Your task to perform on an android device: Turn on the flashlight Image 0: 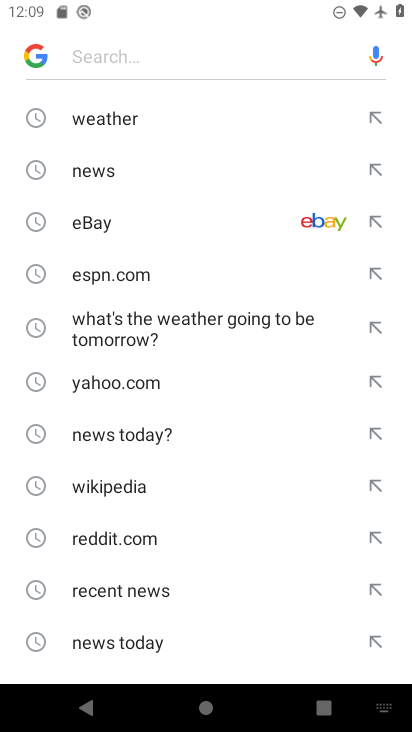
Step 0: press home button
Your task to perform on an android device: Turn on the flashlight Image 1: 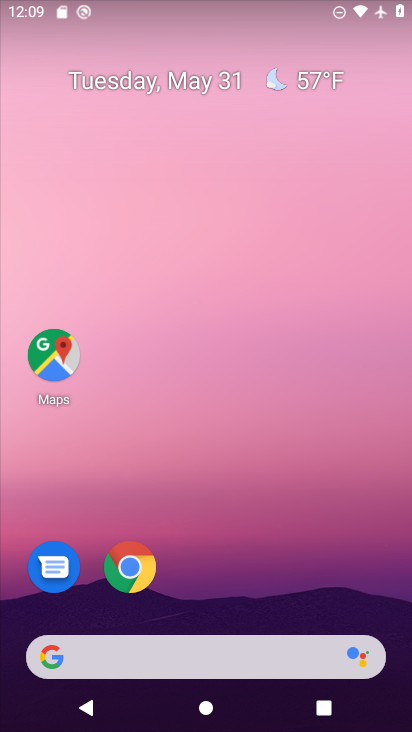
Step 1: drag from (208, 580) to (180, 107)
Your task to perform on an android device: Turn on the flashlight Image 2: 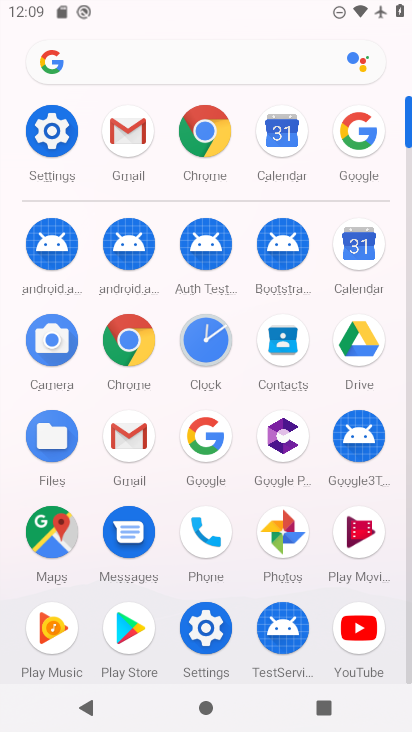
Step 2: click (45, 131)
Your task to perform on an android device: Turn on the flashlight Image 3: 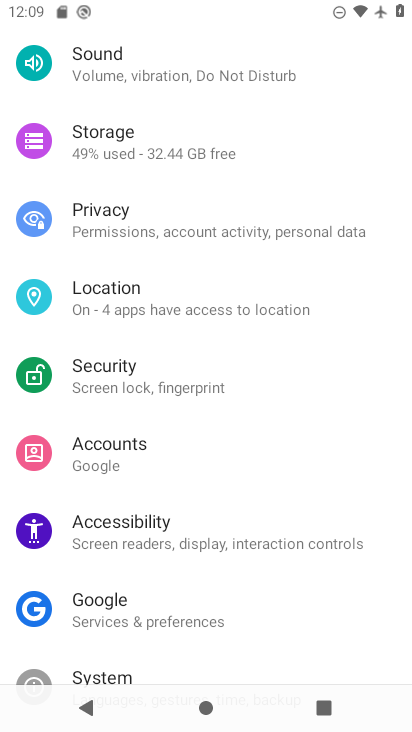
Step 3: task complete